Your task to perform on an android device: turn on the 12-hour format for clock Image 0: 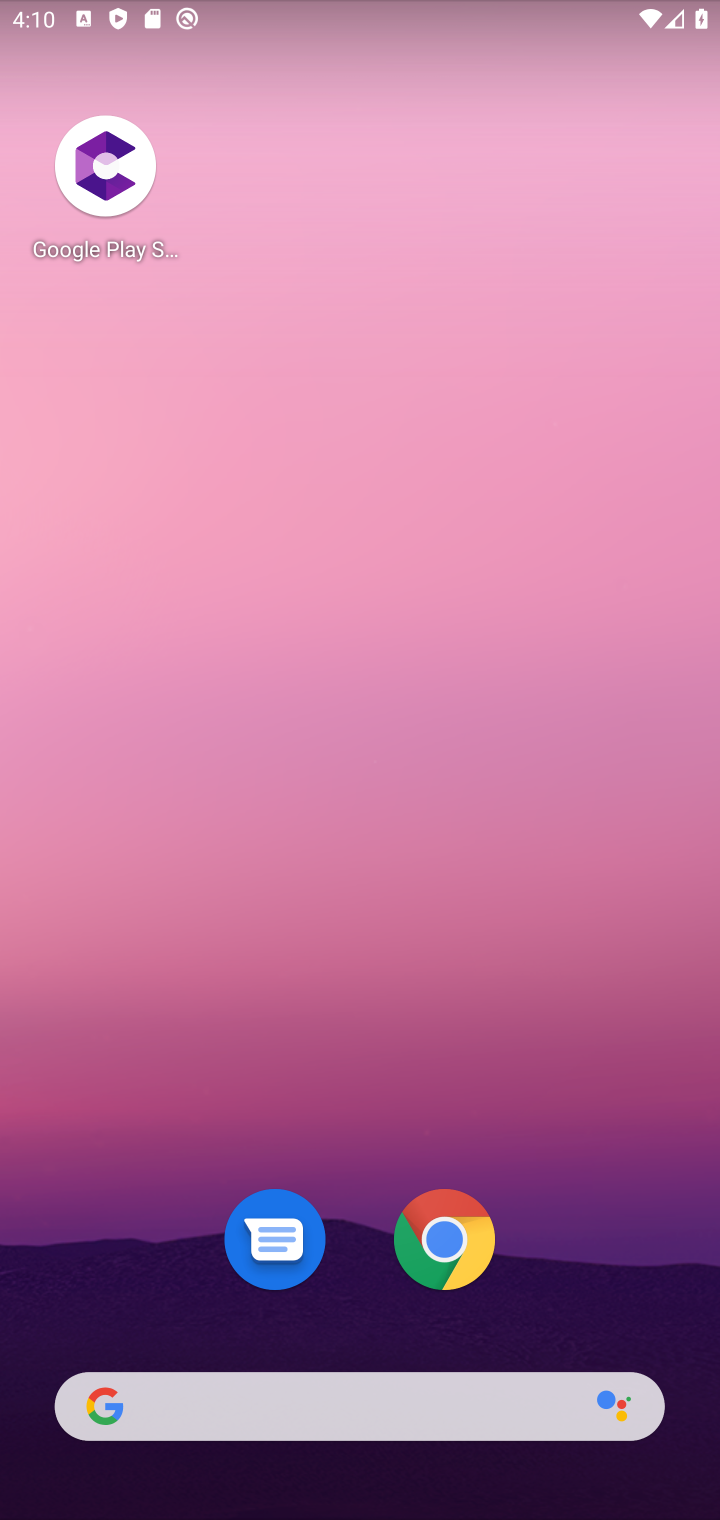
Step 0: drag from (486, 715) to (470, 392)
Your task to perform on an android device: turn on the 12-hour format for clock Image 1: 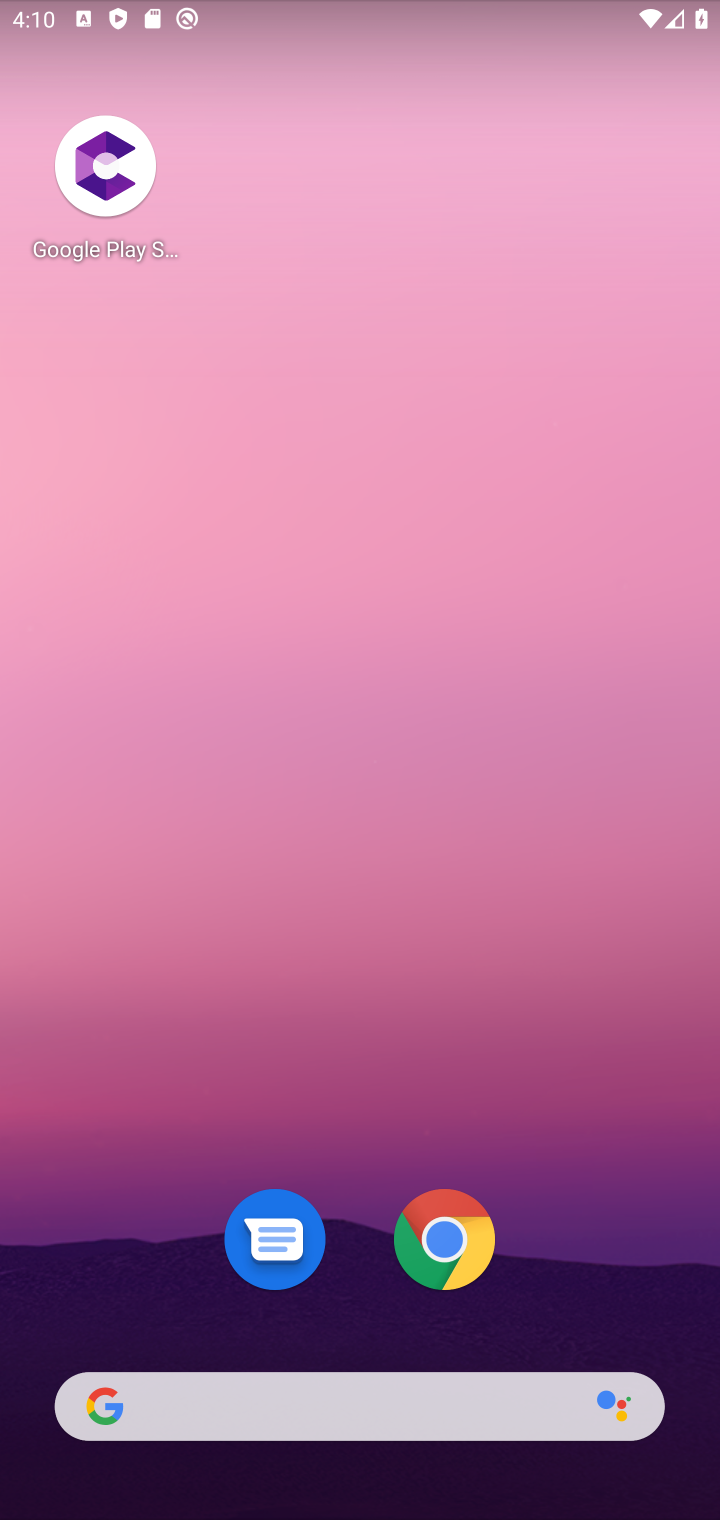
Step 1: drag from (352, 1404) to (363, 39)
Your task to perform on an android device: turn on the 12-hour format for clock Image 2: 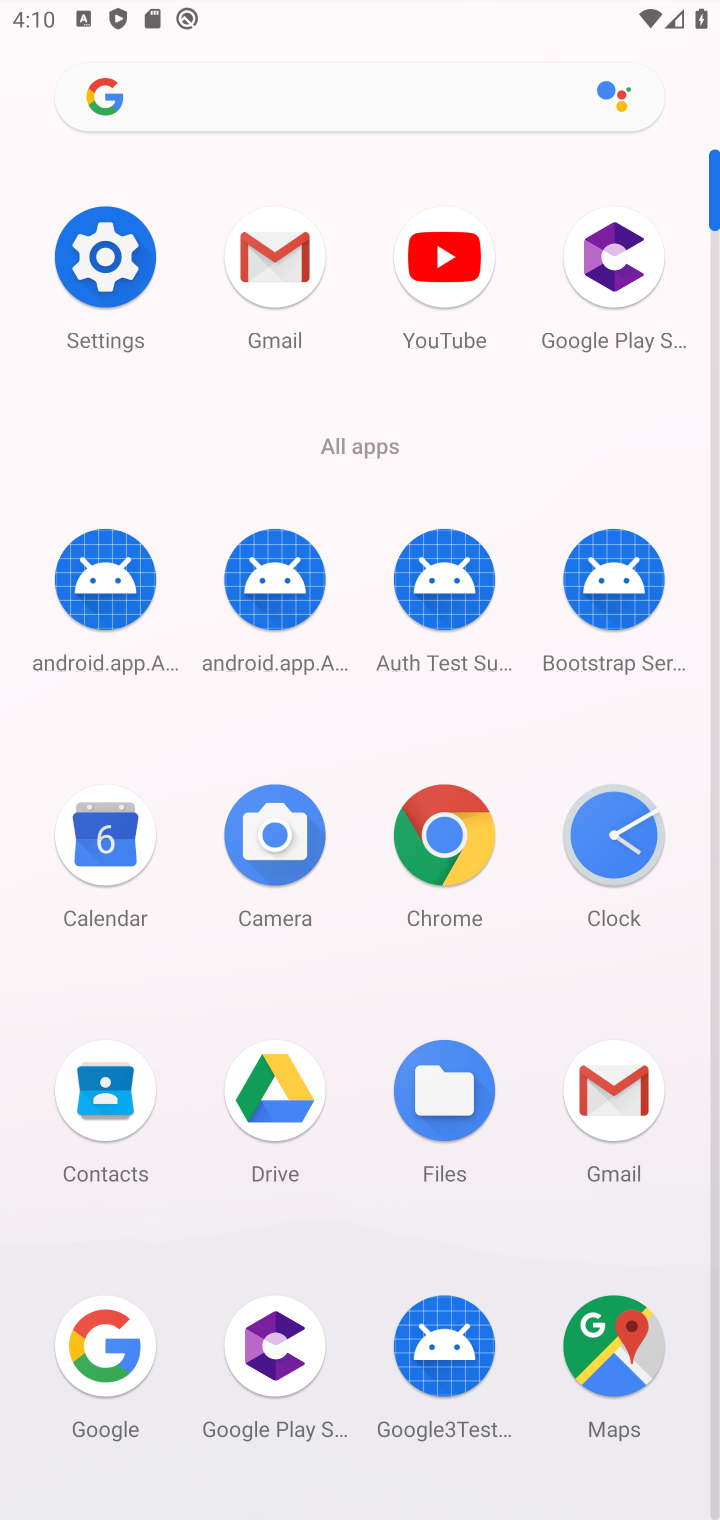
Step 2: click (611, 820)
Your task to perform on an android device: turn on the 12-hour format for clock Image 3: 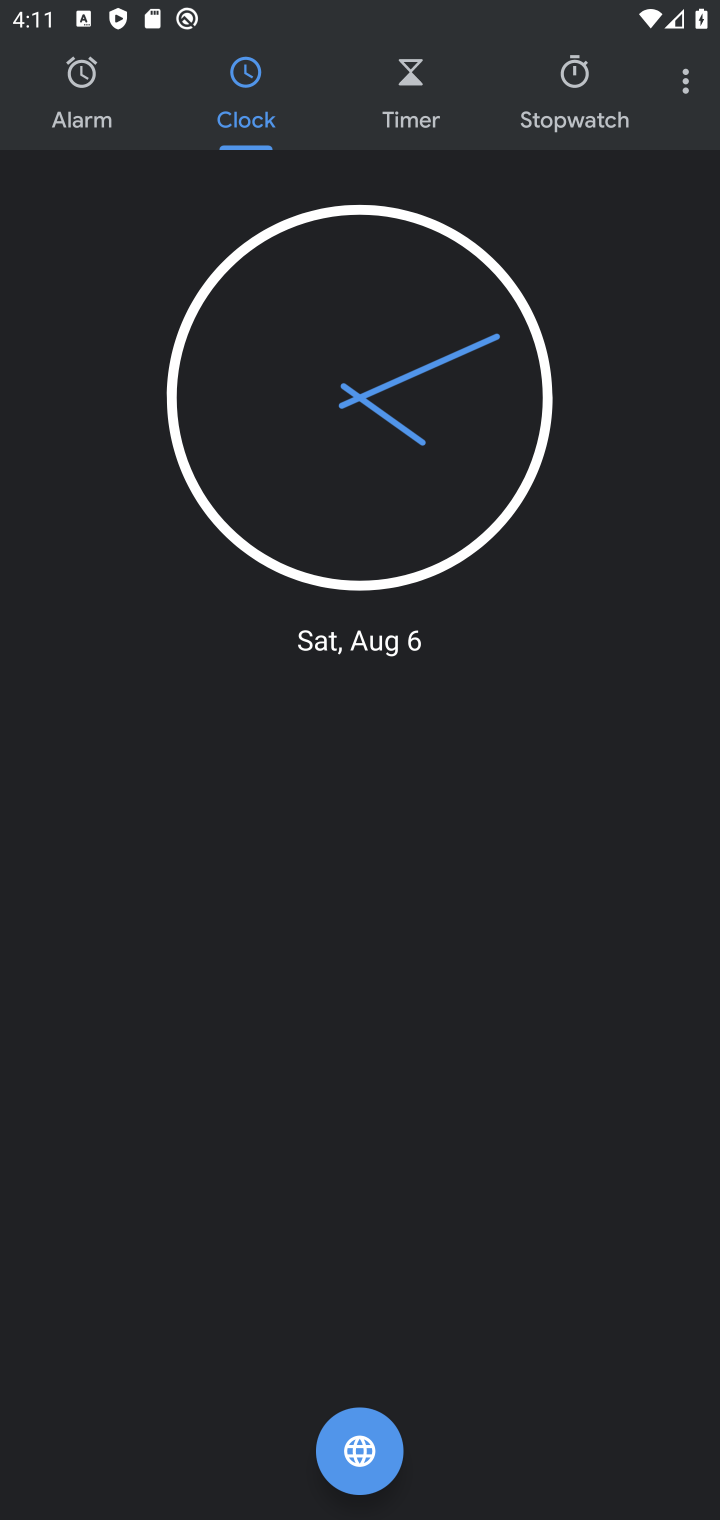
Step 3: click (693, 73)
Your task to perform on an android device: turn on the 12-hour format for clock Image 4: 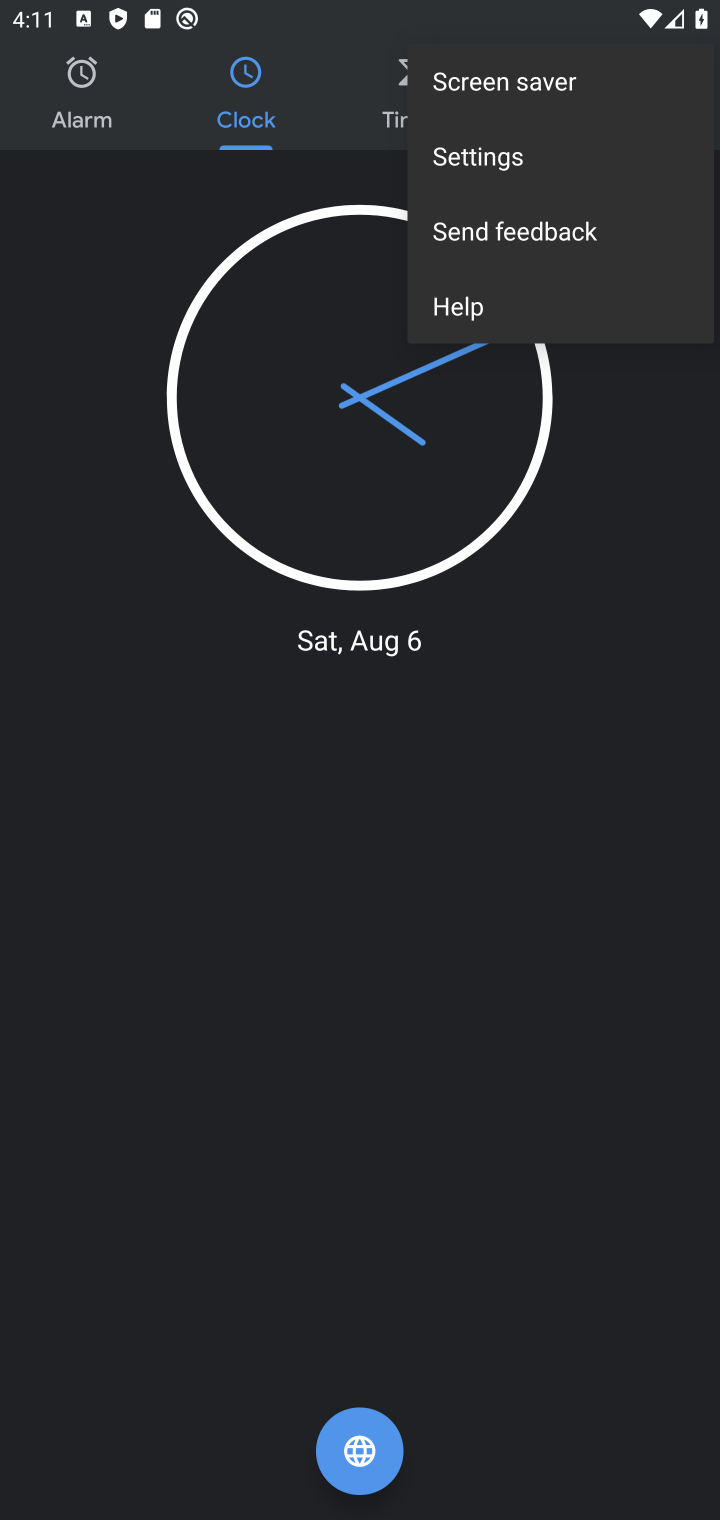
Step 4: click (492, 155)
Your task to perform on an android device: turn on the 12-hour format for clock Image 5: 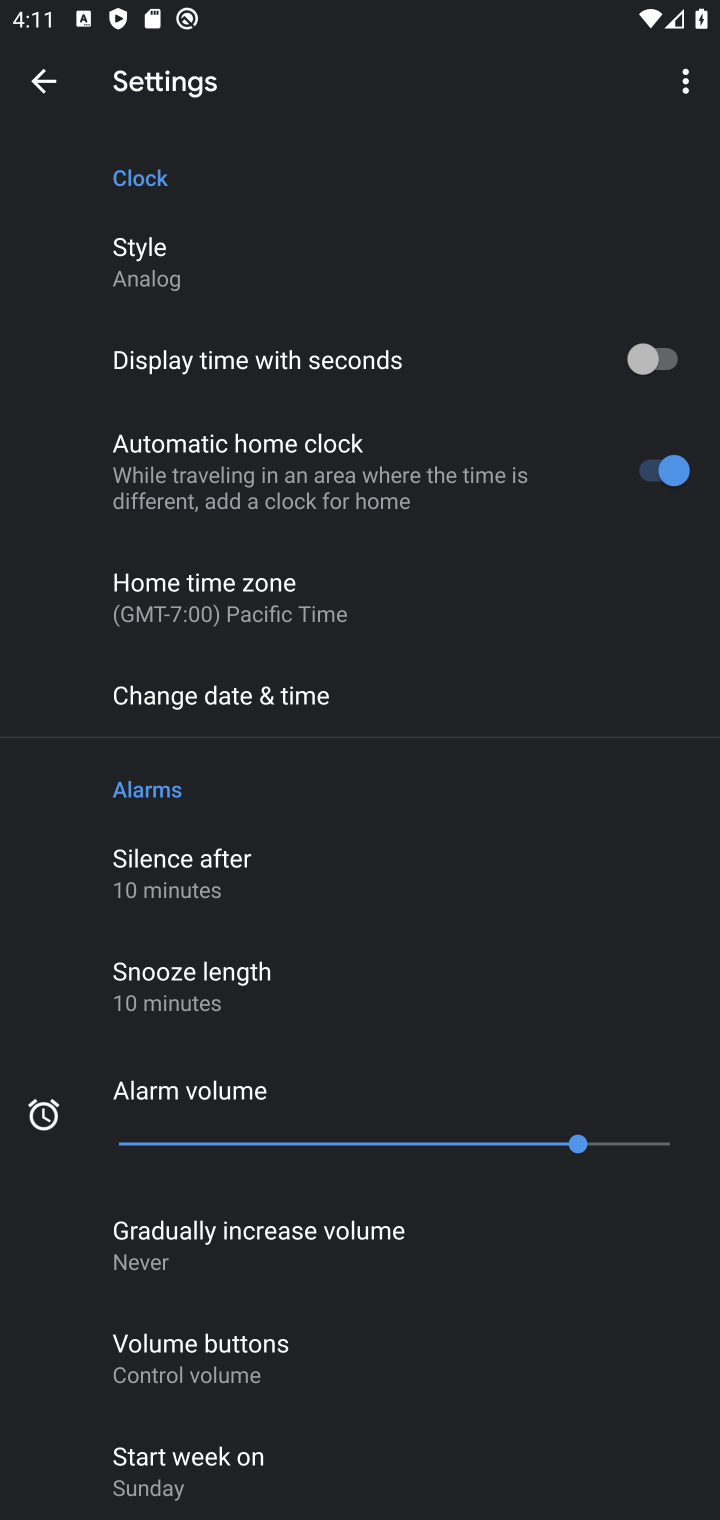
Step 5: click (304, 687)
Your task to perform on an android device: turn on the 12-hour format for clock Image 6: 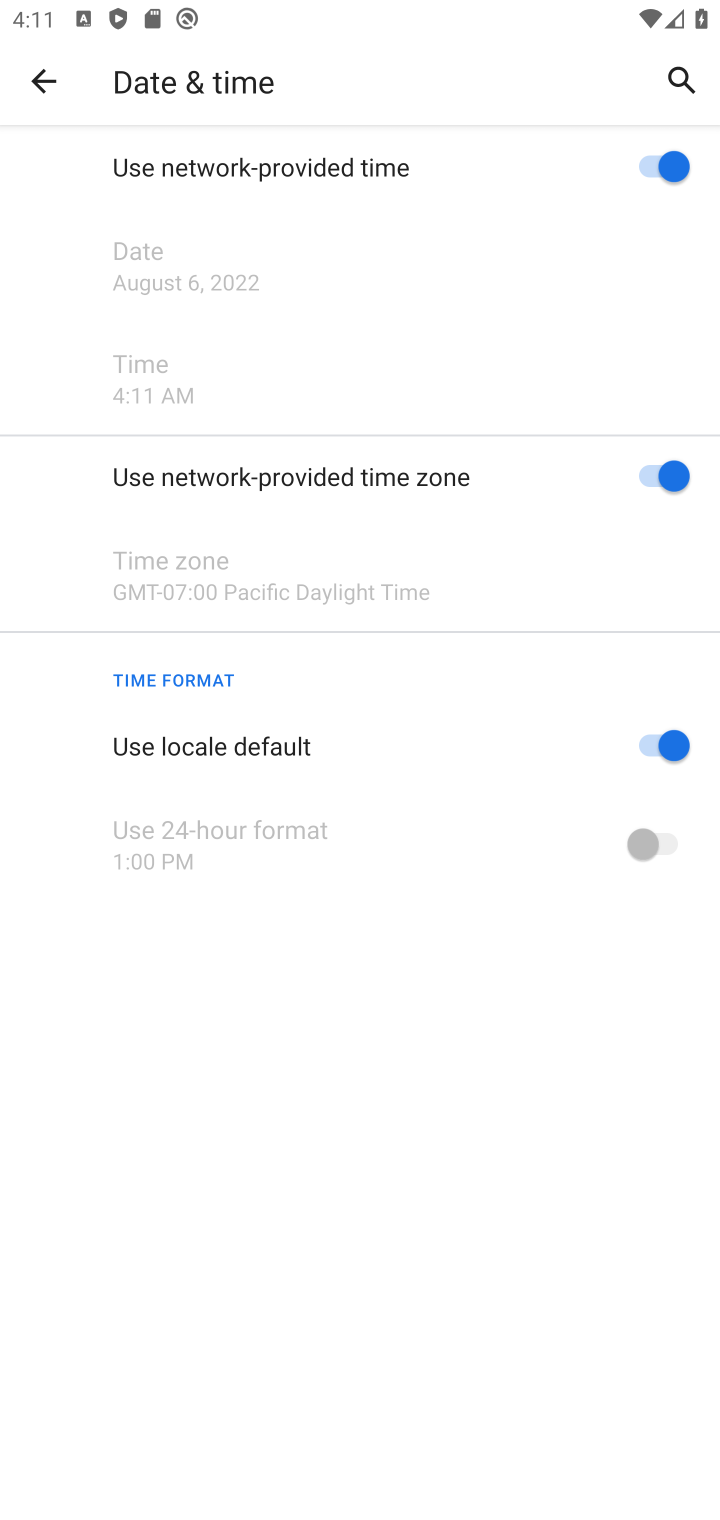
Step 6: click (649, 746)
Your task to perform on an android device: turn on the 12-hour format for clock Image 7: 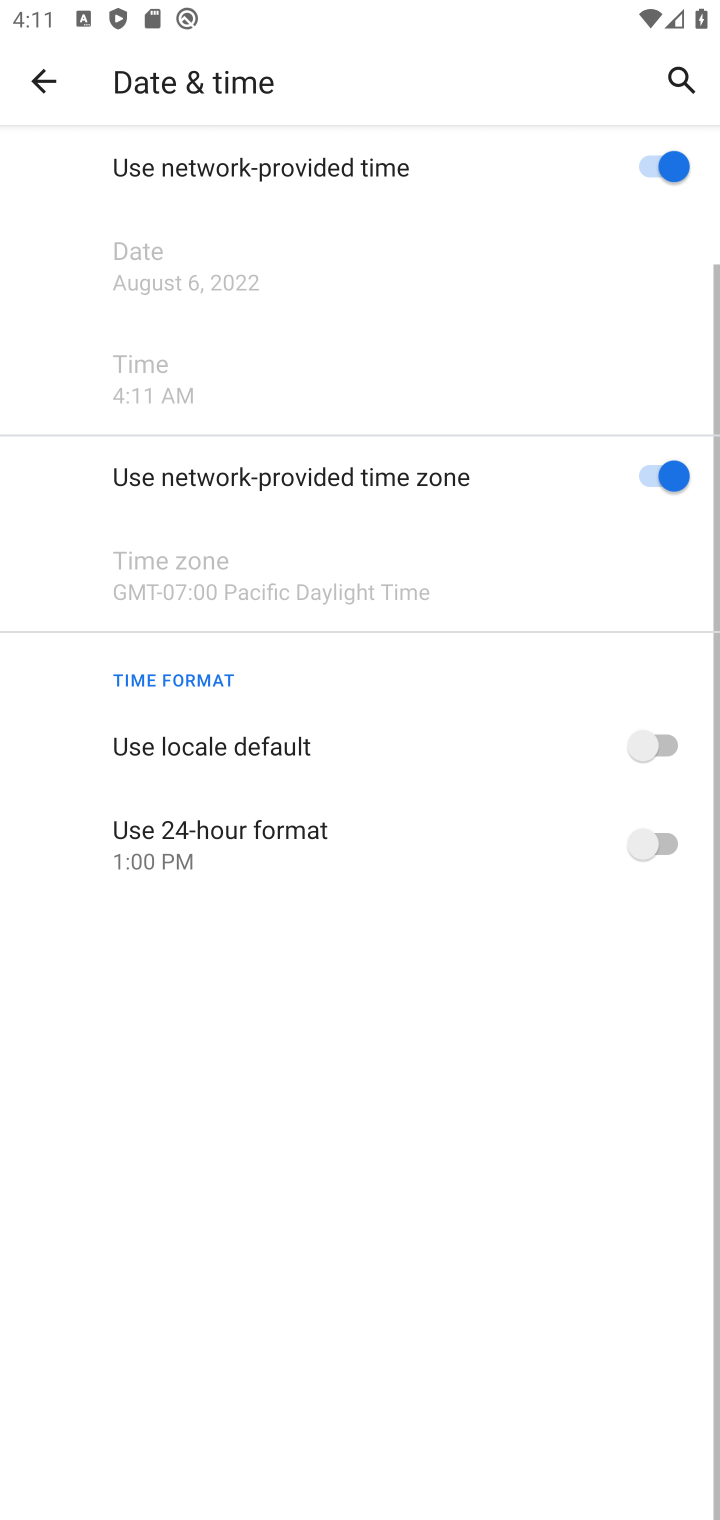
Step 7: click (667, 849)
Your task to perform on an android device: turn on the 12-hour format for clock Image 8: 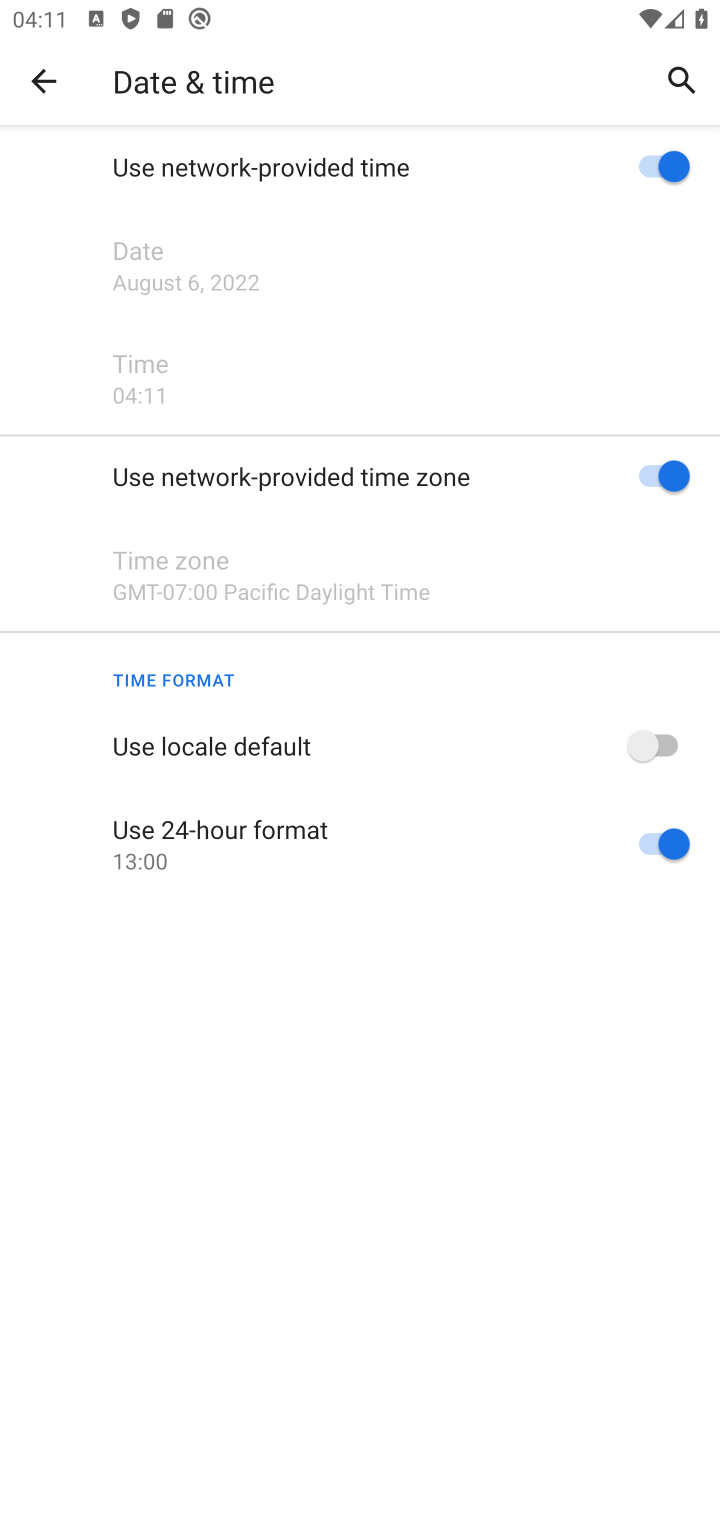
Step 8: click (663, 838)
Your task to perform on an android device: turn on the 12-hour format for clock Image 9: 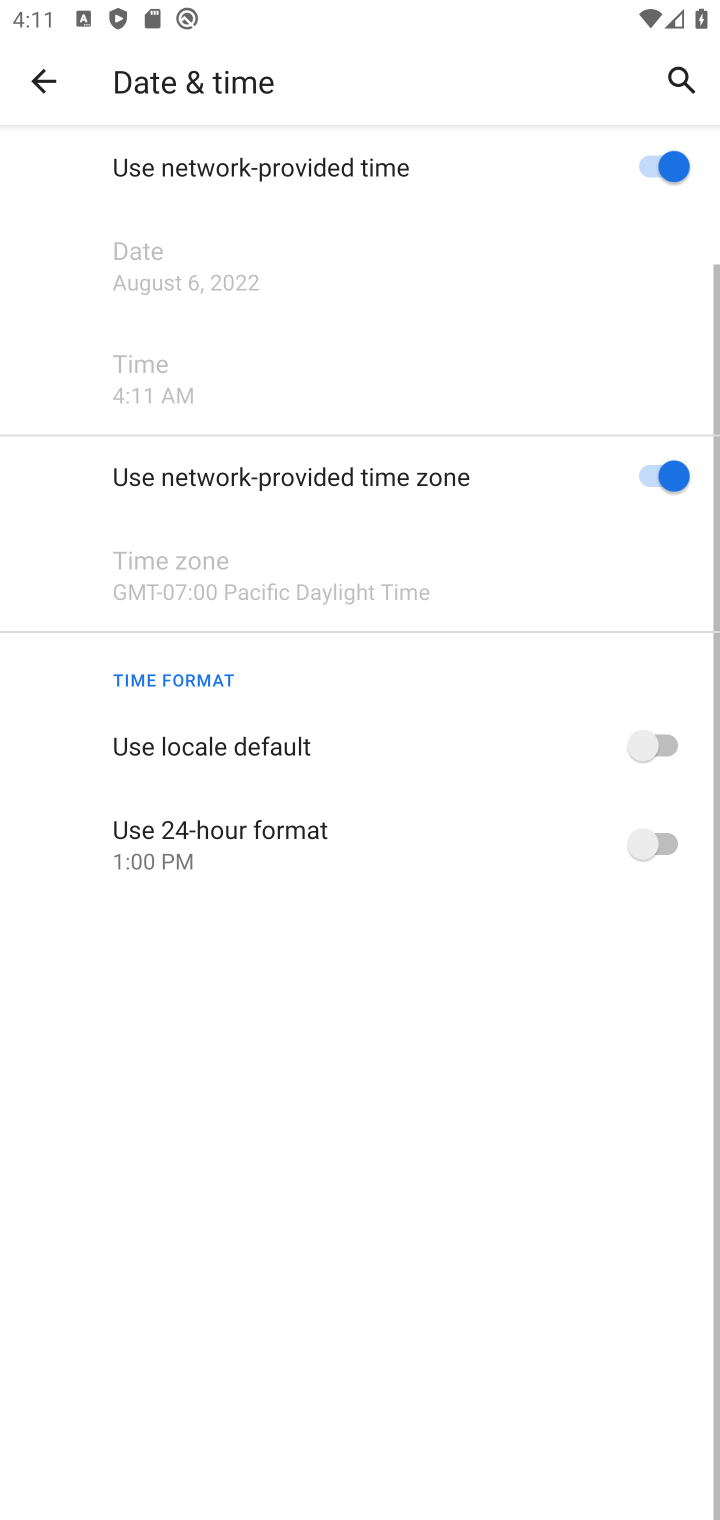
Step 9: task complete